Your task to perform on an android device: Is it going to rain this weekend? Image 0: 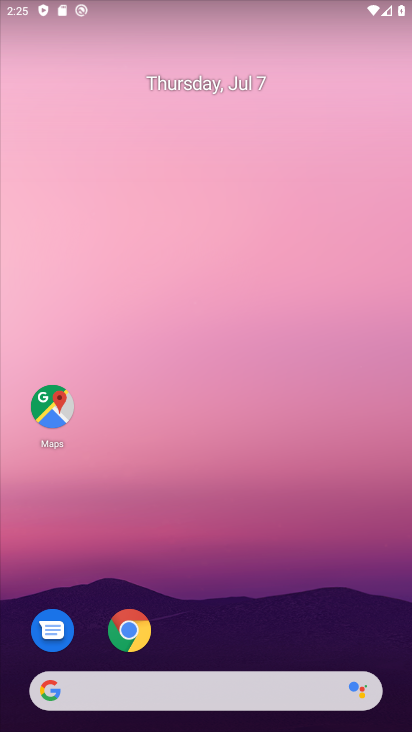
Step 0: drag from (235, 565) to (215, 198)
Your task to perform on an android device: Is it going to rain this weekend? Image 1: 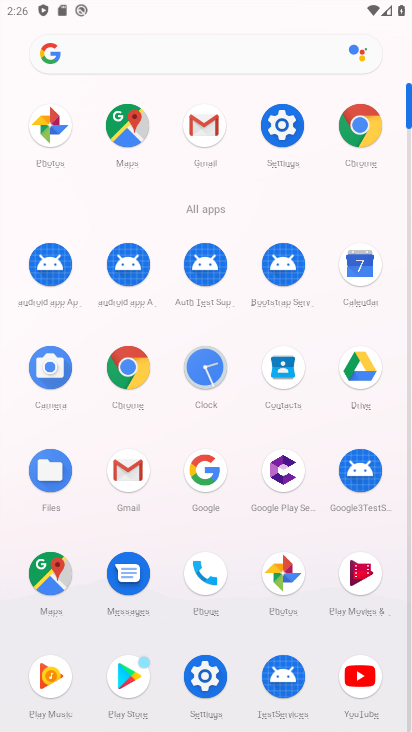
Step 1: click (354, 123)
Your task to perform on an android device: Is it going to rain this weekend? Image 2: 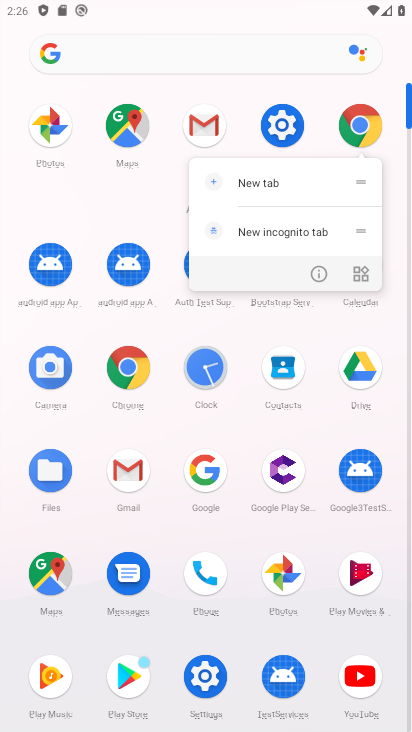
Step 2: click (370, 120)
Your task to perform on an android device: Is it going to rain this weekend? Image 3: 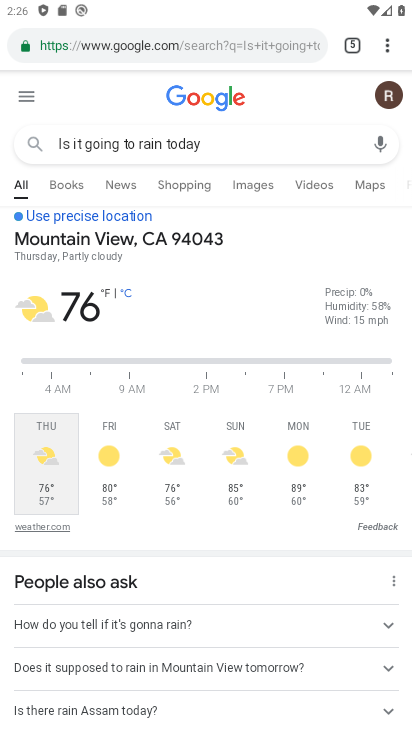
Step 3: click (393, 40)
Your task to perform on an android device: Is it going to rain this weekend? Image 4: 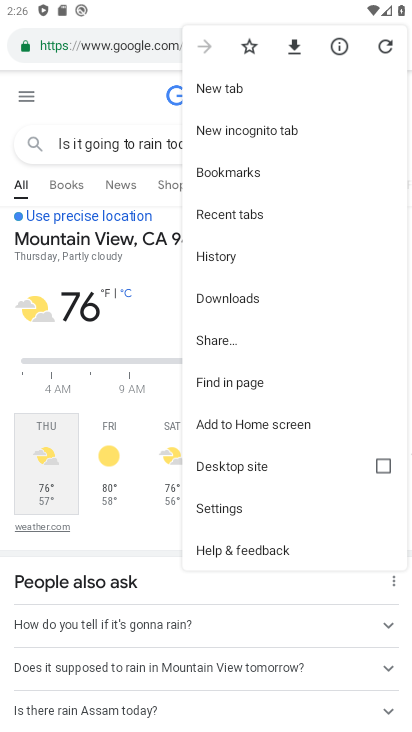
Step 4: click (239, 83)
Your task to perform on an android device: Is it going to rain this weekend? Image 5: 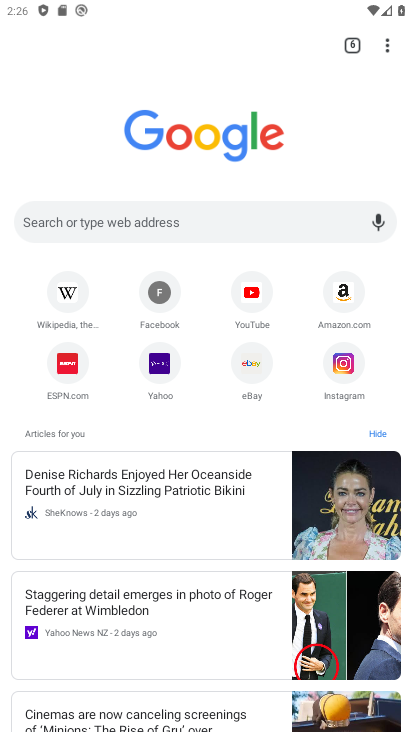
Step 5: click (205, 212)
Your task to perform on an android device: Is it going to rain this weekend? Image 6: 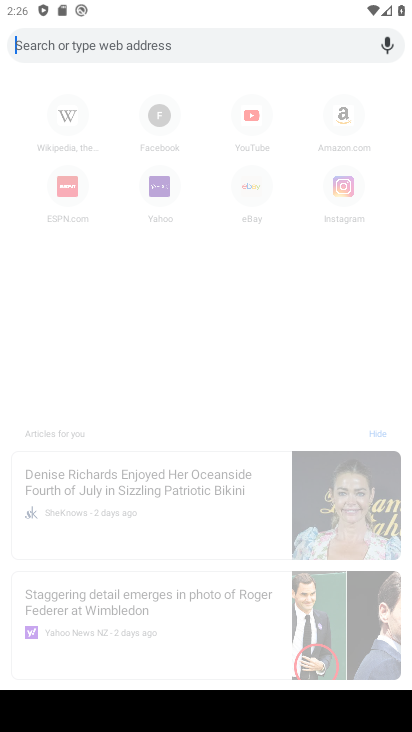
Step 6: type "Is it going to rain this weekend? "
Your task to perform on an android device: Is it going to rain this weekend? Image 7: 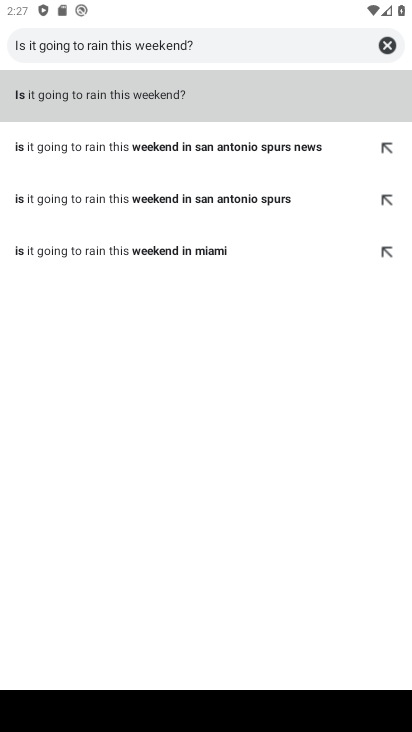
Step 7: click (239, 98)
Your task to perform on an android device: Is it going to rain this weekend? Image 8: 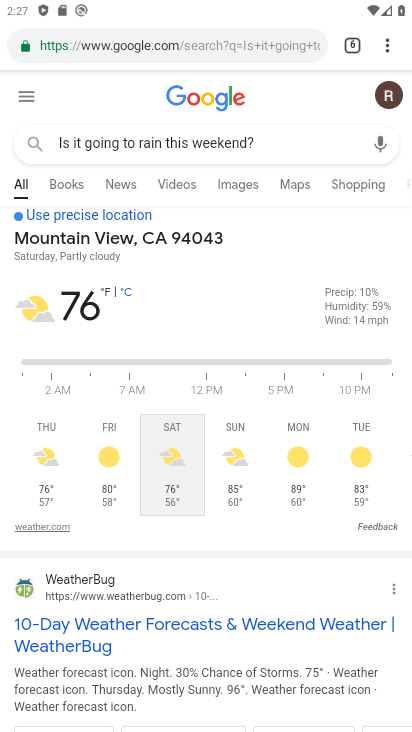
Step 8: task complete